Your task to perform on an android device: What's the weather today? Image 0: 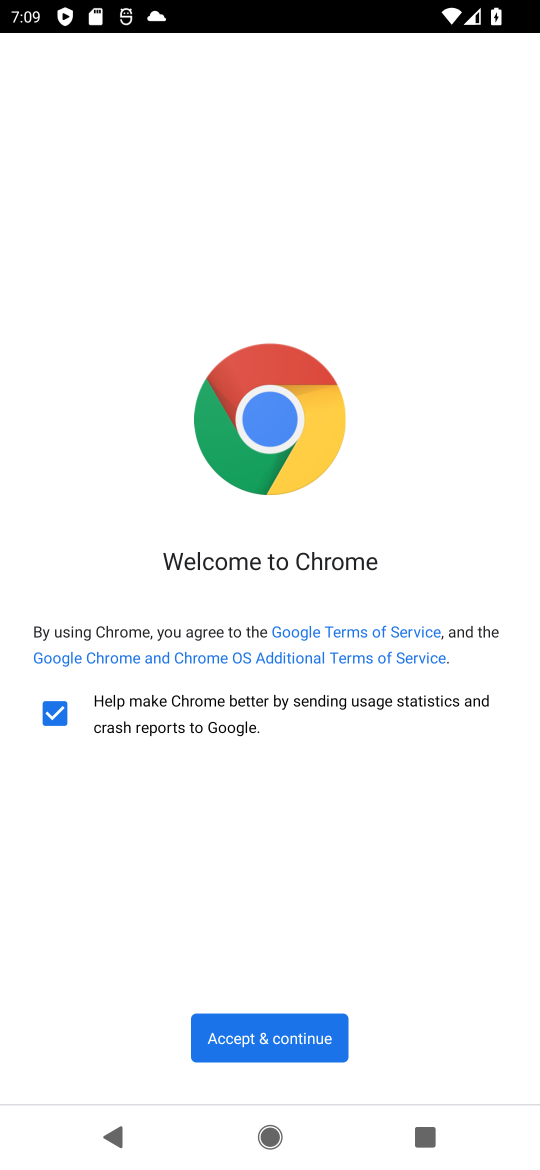
Step 0: press home button
Your task to perform on an android device: What's the weather today? Image 1: 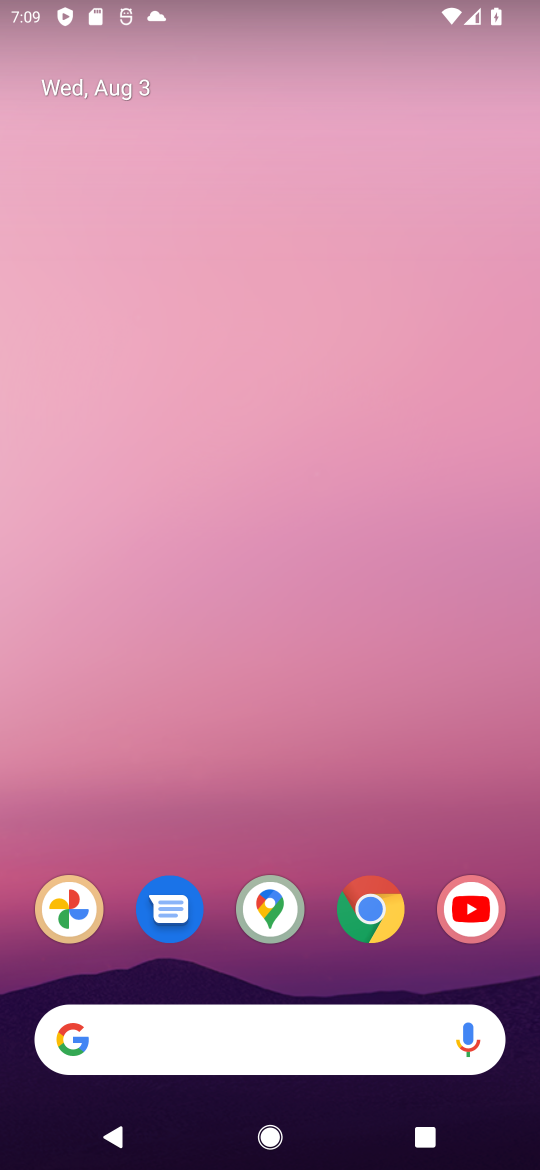
Step 1: drag from (296, 744) to (294, 89)
Your task to perform on an android device: What's the weather today? Image 2: 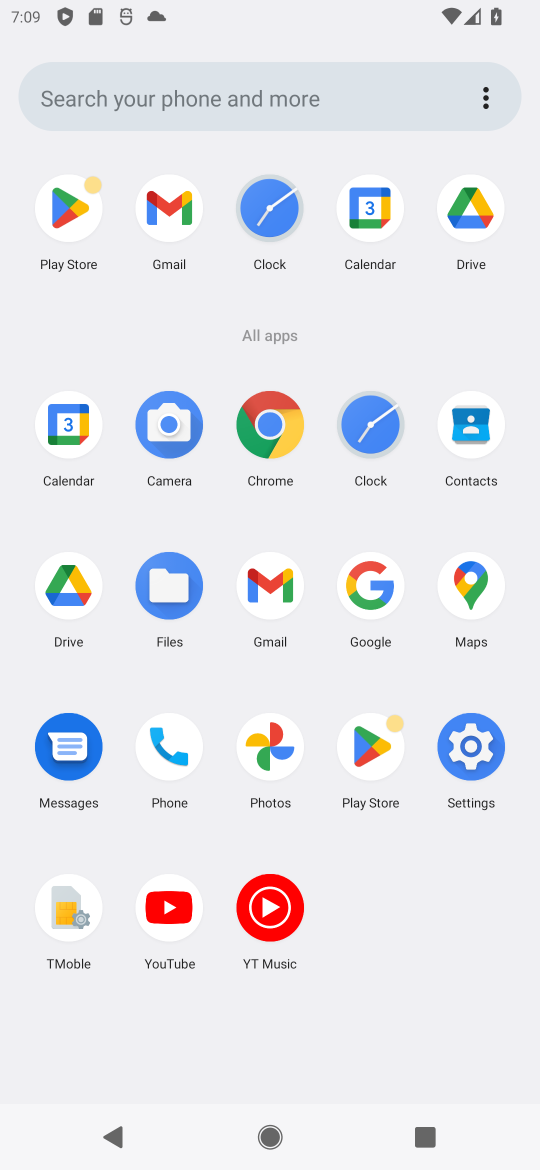
Step 2: click (366, 98)
Your task to perform on an android device: What's the weather today? Image 3: 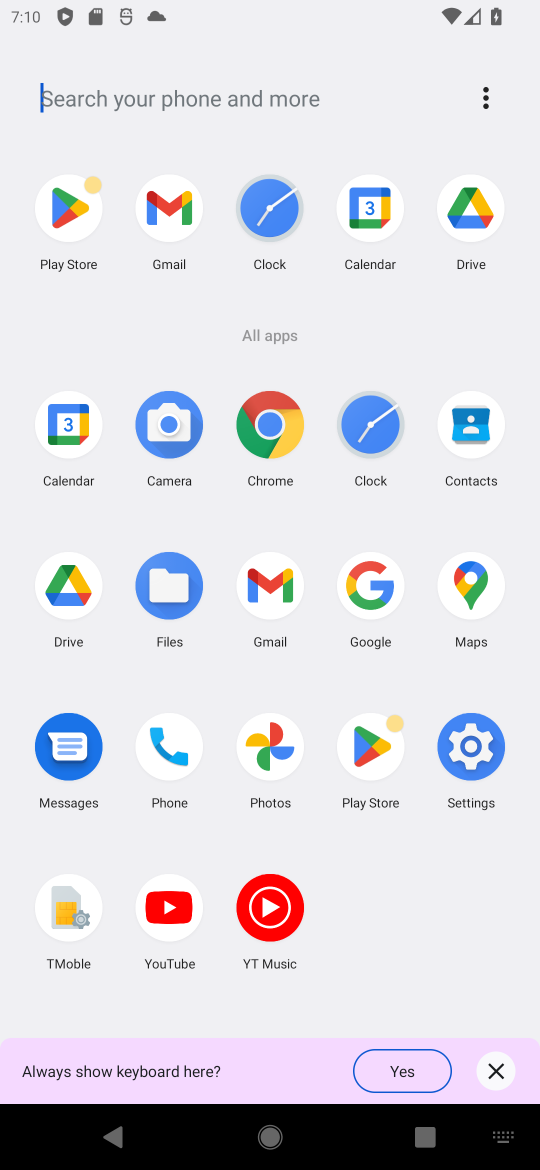
Step 3: type "weather "
Your task to perform on an android device: What's the weather today? Image 4: 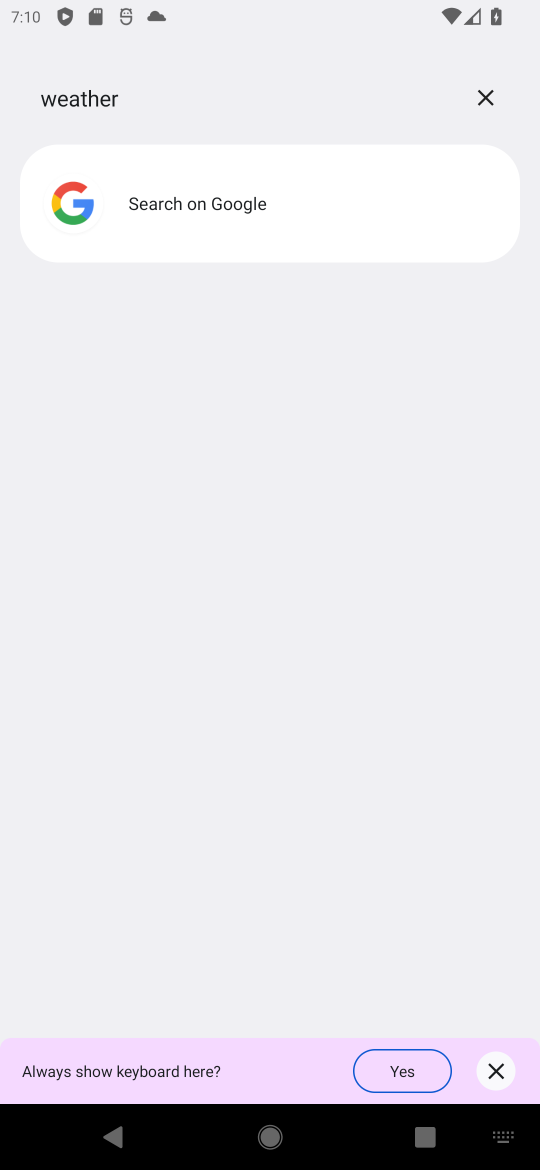
Step 4: task complete